Your task to perform on an android device: turn on airplane mode Image 0: 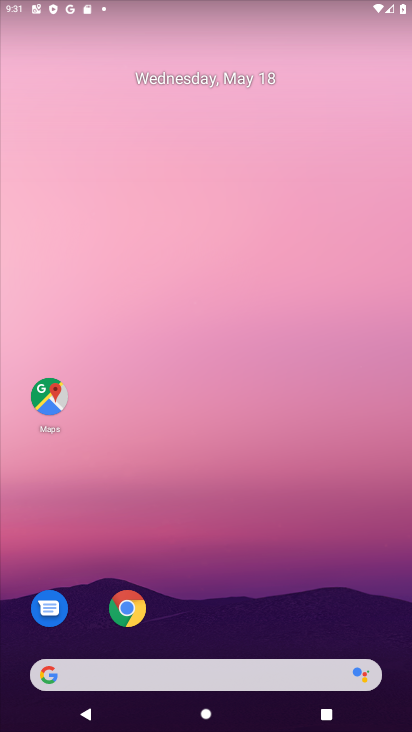
Step 0: drag from (283, 643) to (208, 143)
Your task to perform on an android device: turn on airplane mode Image 1: 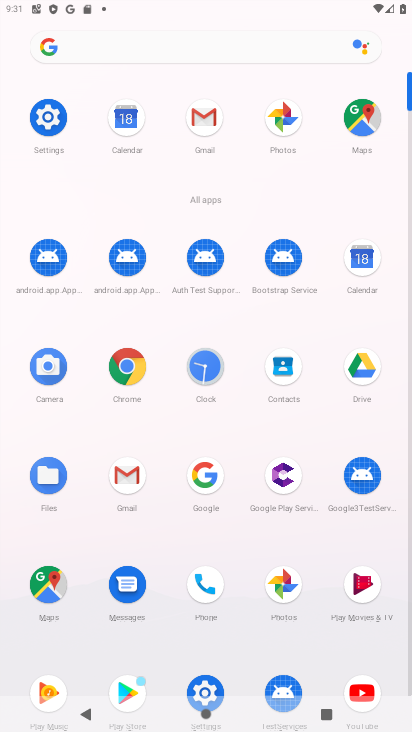
Step 1: click (70, 141)
Your task to perform on an android device: turn on airplane mode Image 2: 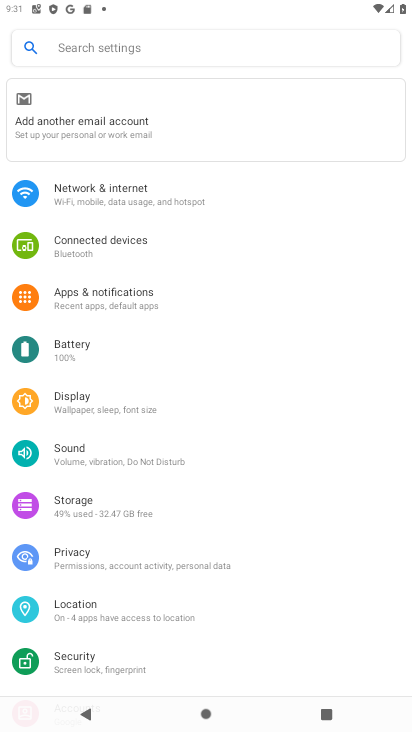
Step 2: click (174, 208)
Your task to perform on an android device: turn on airplane mode Image 3: 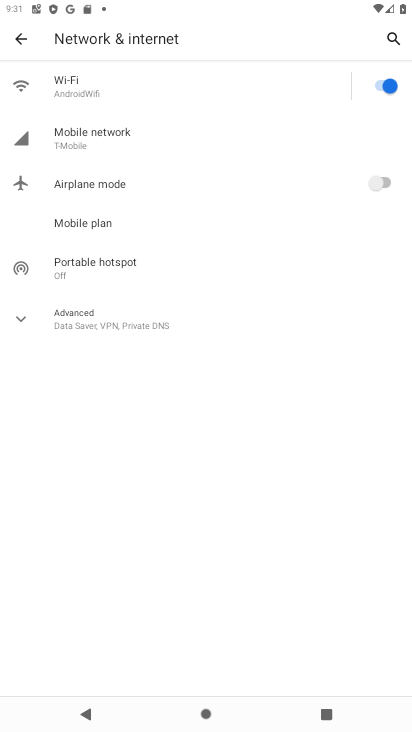
Step 3: click (151, 180)
Your task to perform on an android device: turn on airplane mode Image 4: 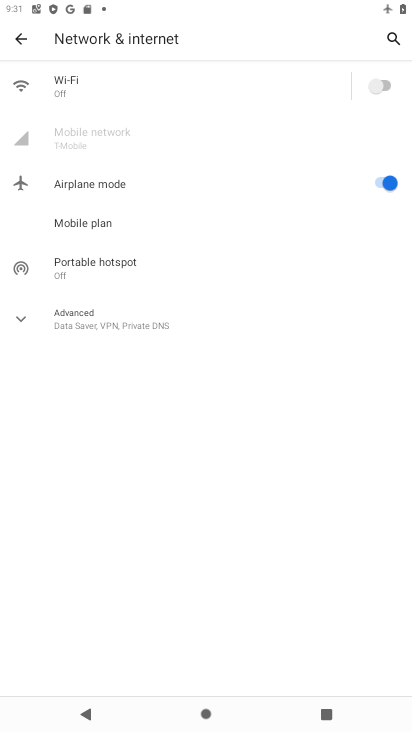
Step 4: click (382, 87)
Your task to perform on an android device: turn on airplane mode Image 5: 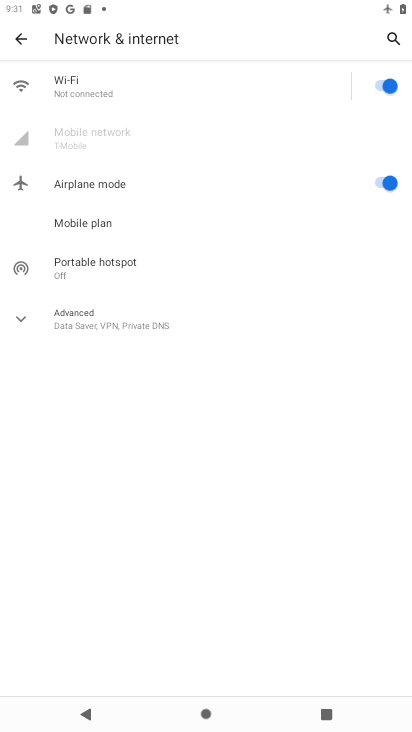
Step 5: task complete